Your task to perform on an android device: Show me the alarms in the clock app Image 0: 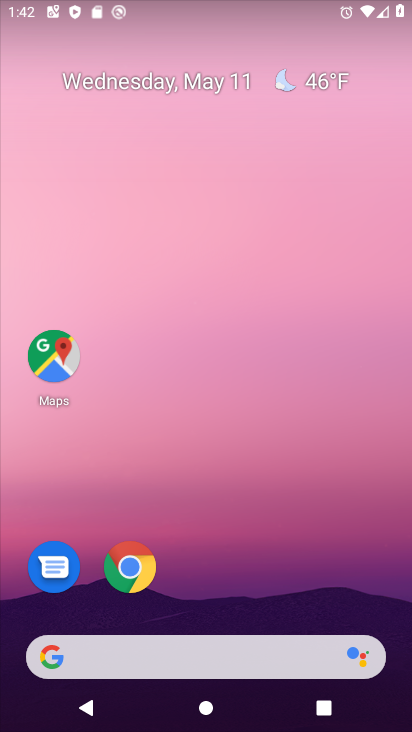
Step 0: drag from (224, 610) to (305, 37)
Your task to perform on an android device: Show me the alarms in the clock app Image 1: 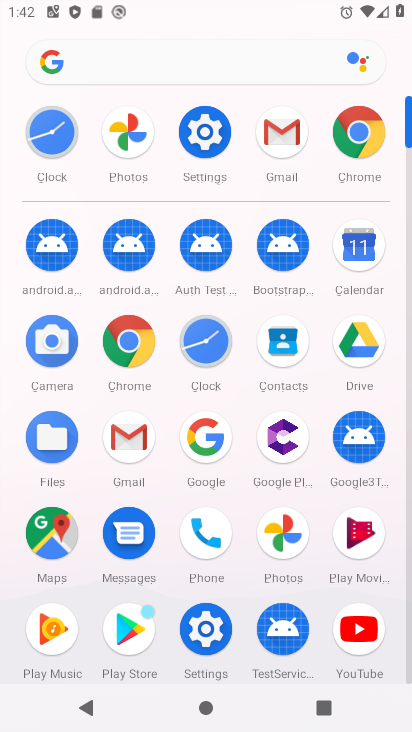
Step 1: click (211, 344)
Your task to perform on an android device: Show me the alarms in the clock app Image 2: 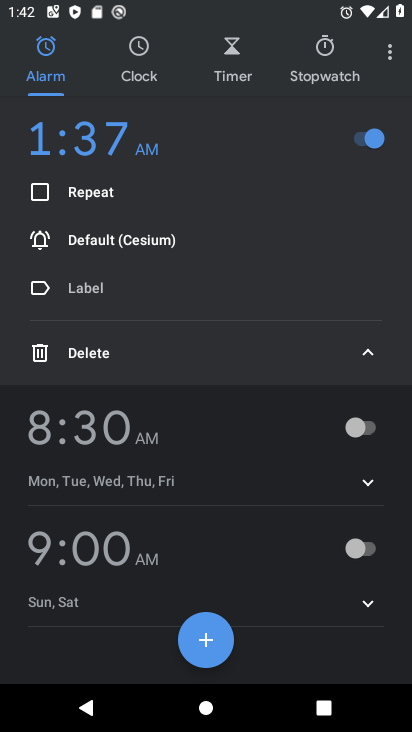
Step 2: click (41, 61)
Your task to perform on an android device: Show me the alarms in the clock app Image 3: 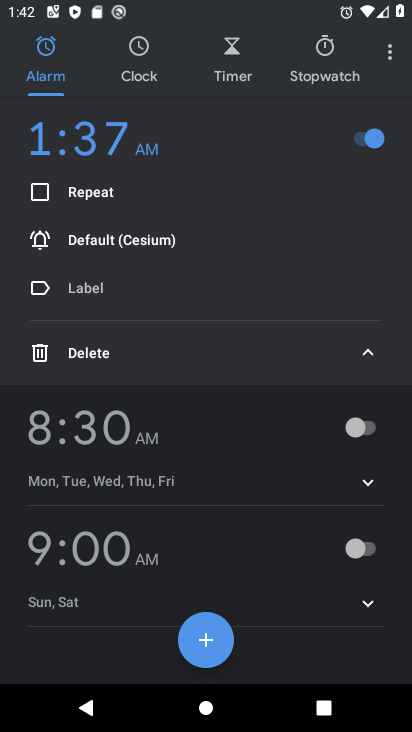
Step 3: task complete